Your task to perform on an android device: set an alarm Image 0: 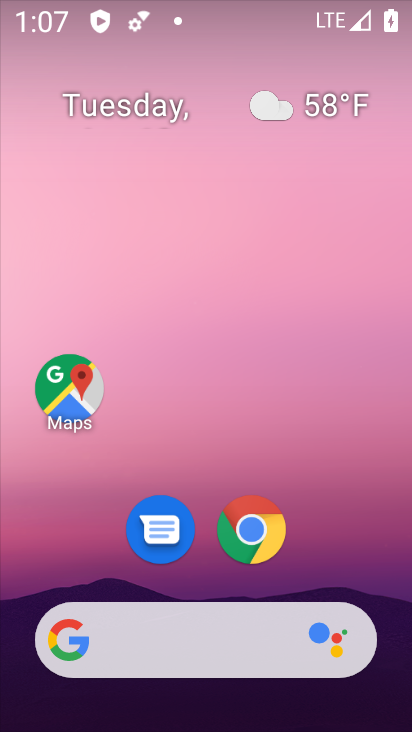
Step 0: drag from (249, 548) to (253, 179)
Your task to perform on an android device: set an alarm Image 1: 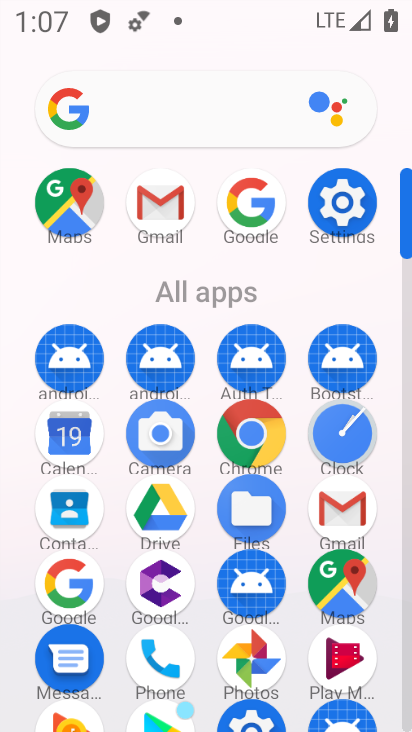
Step 1: click (343, 442)
Your task to perform on an android device: set an alarm Image 2: 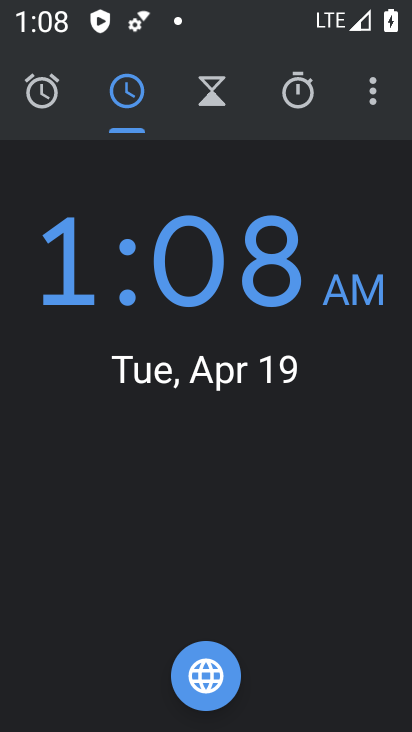
Step 2: click (55, 104)
Your task to perform on an android device: set an alarm Image 3: 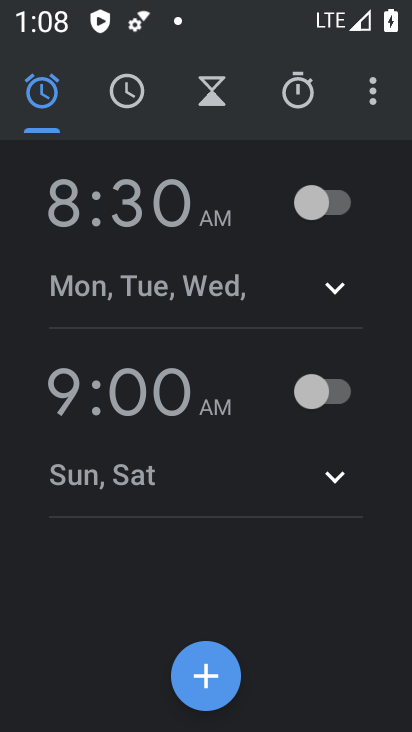
Step 3: click (188, 690)
Your task to perform on an android device: set an alarm Image 4: 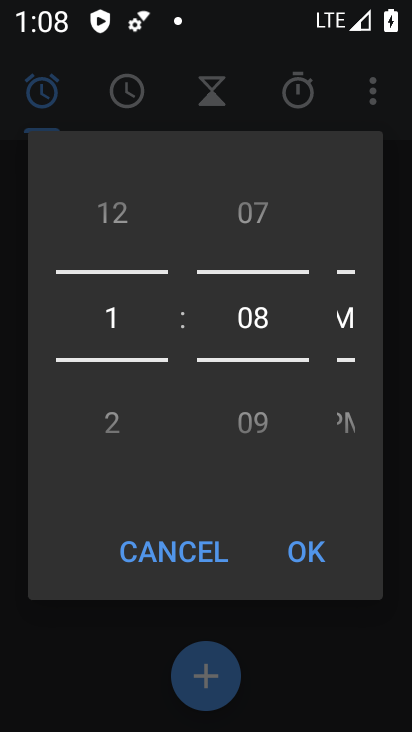
Step 4: drag from (111, 386) to (117, 187)
Your task to perform on an android device: set an alarm Image 5: 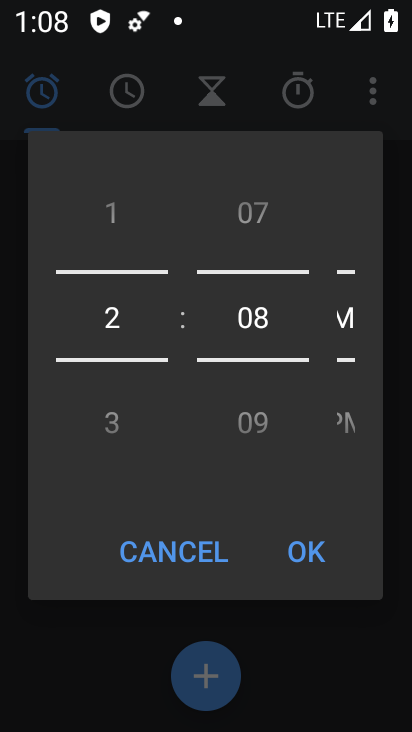
Step 5: click (295, 549)
Your task to perform on an android device: set an alarm Image 6: 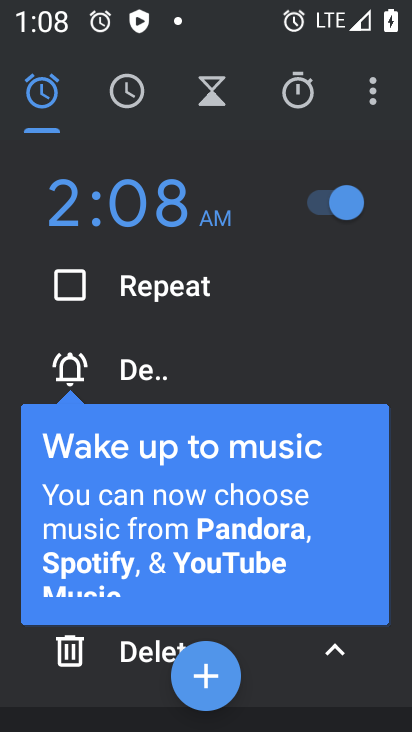
Step 6: task complete